Your task to perform on an android device: Is it going to rain this weekend? Image 0: 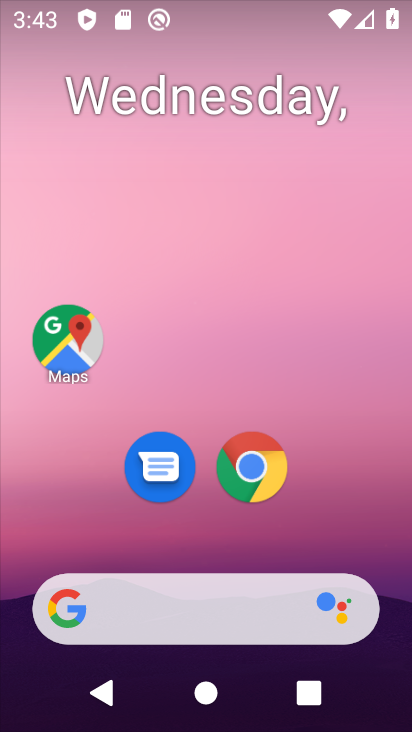
Step 0: drag from (322, 487) to (225, 16)
Your task to perform on an android device: Is it going to rain this weekend? Image 1: 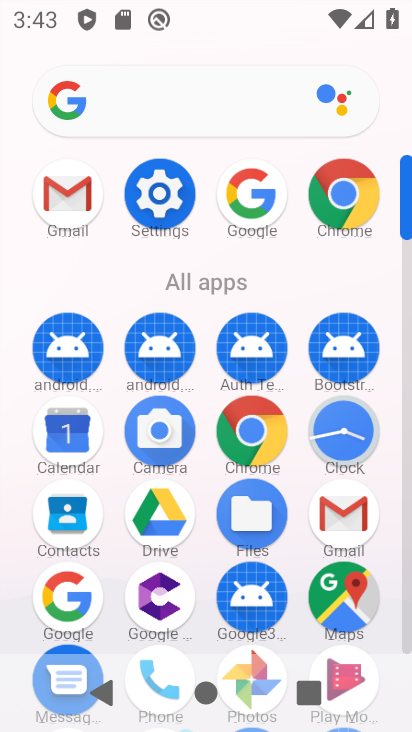
Step 1: click (260, 191)
Your task to perform on an android device: Is it going to rain this weekend? Image 2: 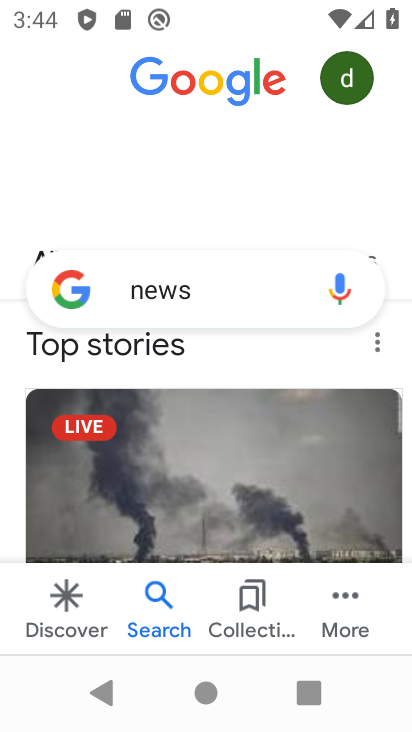
Step 2: click (203, 294)
Your task to perform on an android device: Is it going to rain this weekend? Image 3: 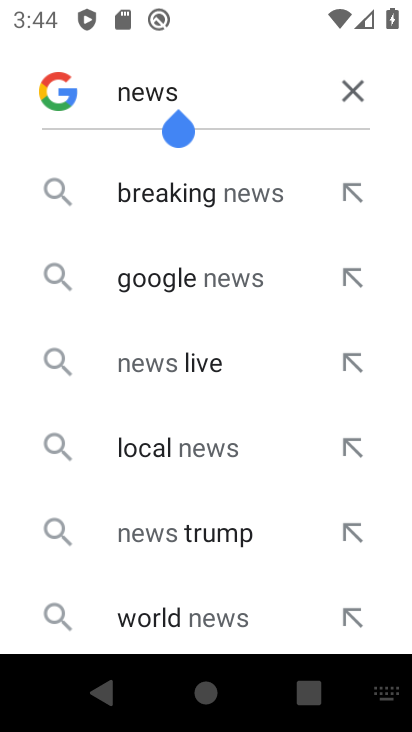
Step 3: click (349, 91)
Your task to perform on an android device: Is it going to rain this weekend? Image 4: 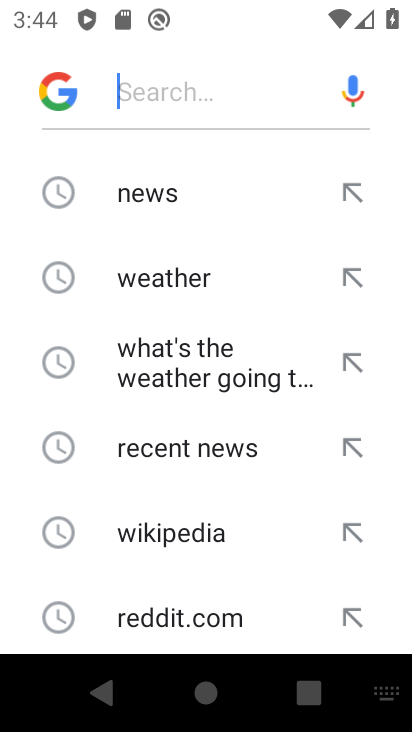
Step 4: click (192, 287)
Your task to perform on an android device: Is it going to rain this weekend? Image 5: 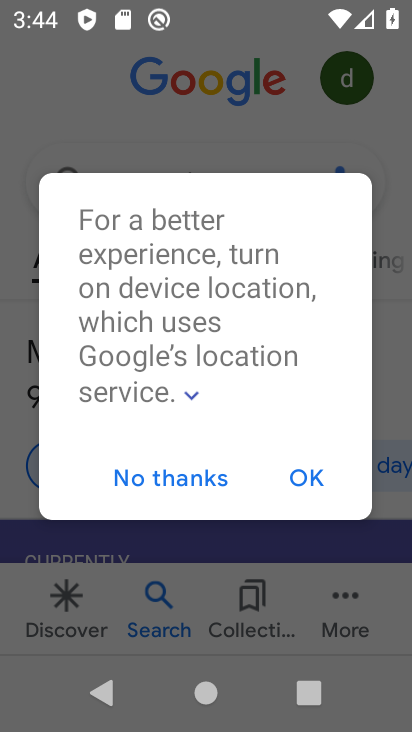
Step 5: click (304, 484)
Your task to perform on an android device: Is it going to rain this weekend? Image 6: 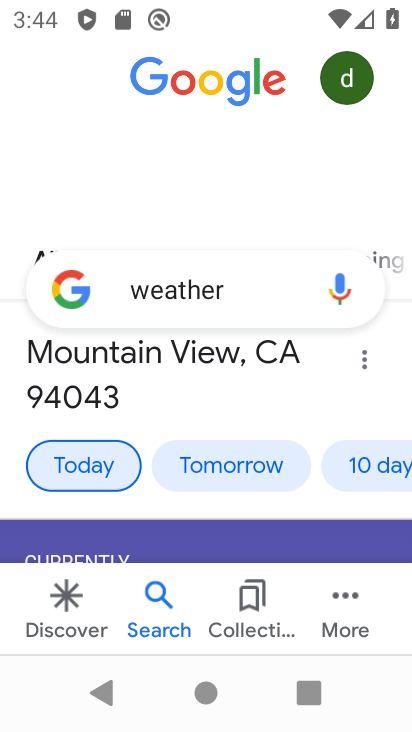
Step 6: drag from (292, 244) to (281, 64)
Your task to perform on an android device: Is it going to rain this weekend? Image 7: 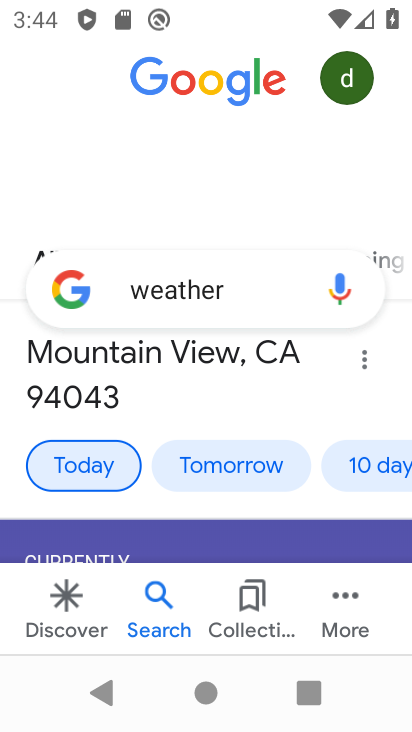
Step 7: drag from (325, 371) to (300, 88)
Your task to perform on an android device: Is it going to rain this weekend? Image 8: 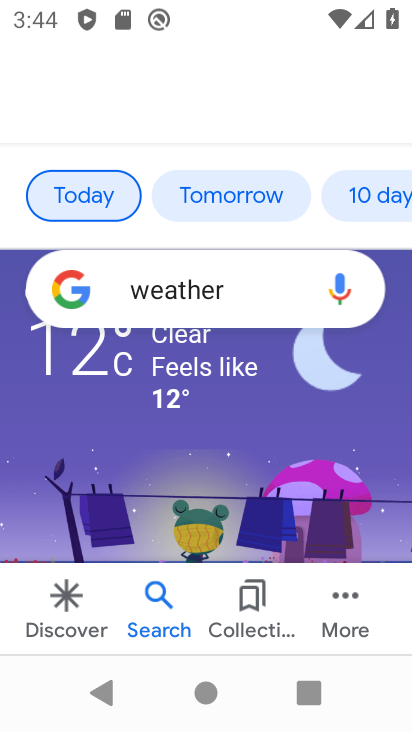
Step 8: click (369, 188)
Your task to perform on an android device: Is it going to rain this weekend? Image 9: 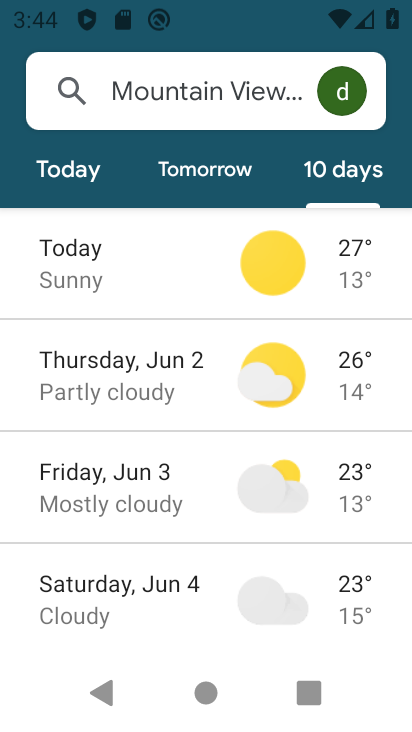
Step 9: task complete